Your task to perform on an android device: delete the emails in spam in the gmail app Image 0: 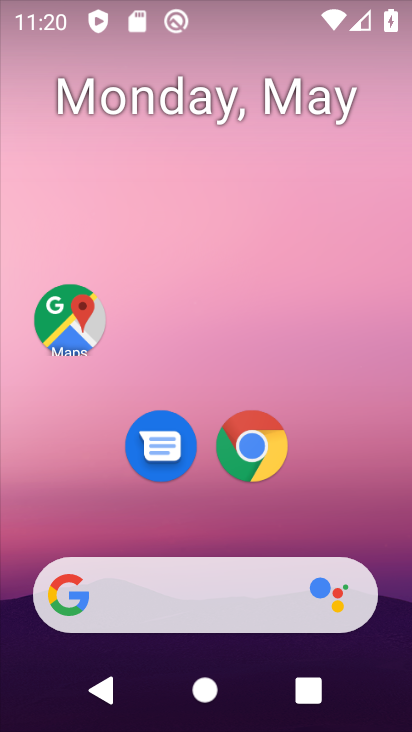
Step 0: drag from (332, 494) to (201, 46)
Your task to perform on an android device: delete the emails in spam in the gmail app Image 1: 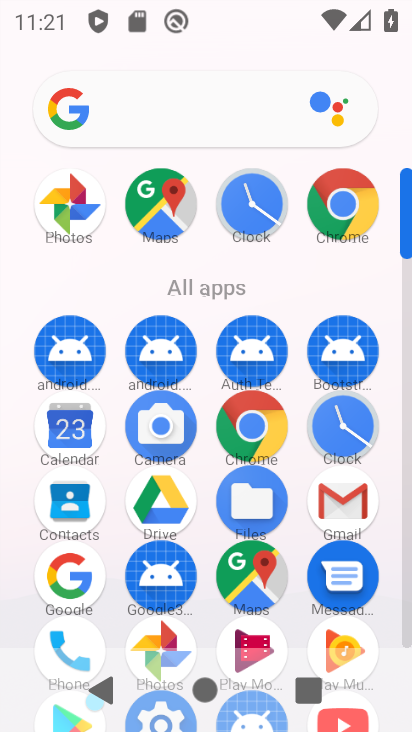
Step 1: click (329, 494)
Your task to perform on an android device: delete the emails in spam in the gmail app Image 2: 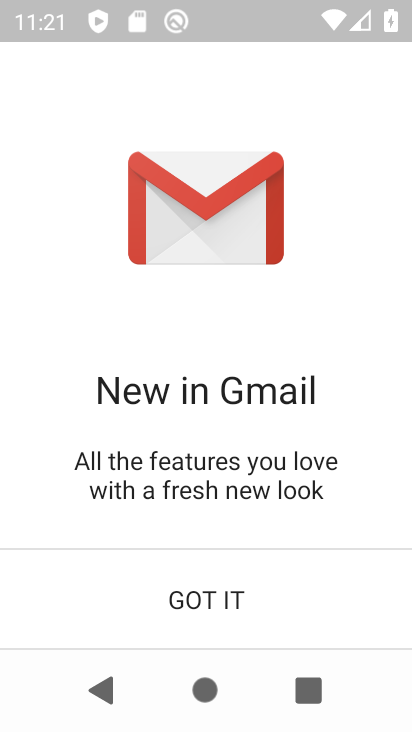
Step 2: click (214, 586)
Your task to perform on an android device: delete the emails in spam in the gmail app Image 3: 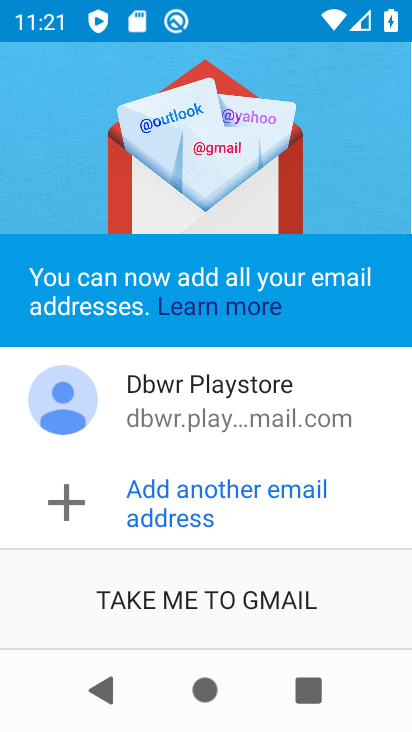
Step 3: click (204, 593)
Your task to perform on an android device: delete the emails in spam in the gmail app Image 4: 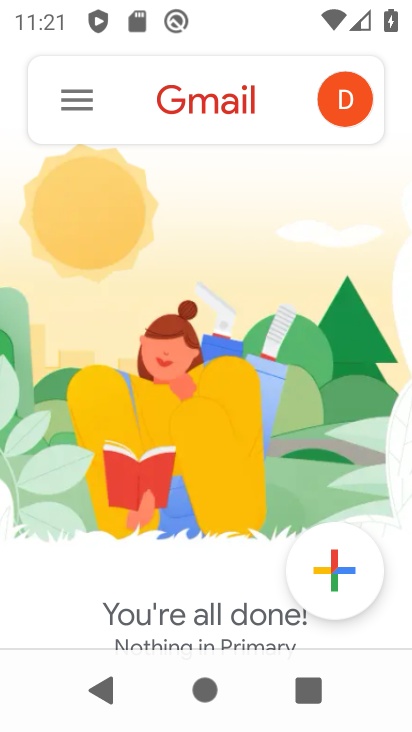
Step 4: click (72, 93)
Your task to perform on an android device: delete the emails in spam in the gmail app Image 5: 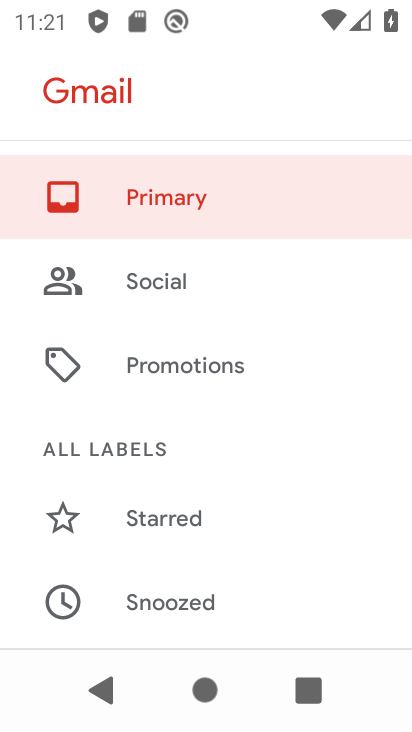
Step 5: drag from (240, 556) to (217, 161)
Your task to perform on an android device: delete the emails in spam in the gmail app Image 6: 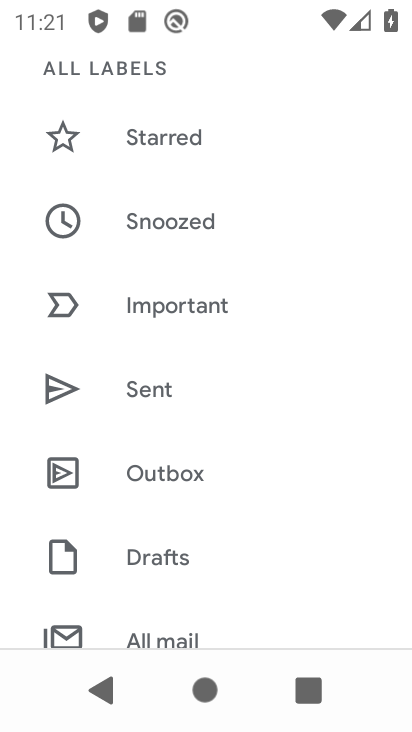
Step 6: drag from (224, 528) to (206, 290)
Your task to perform on an android device: delete the emails in spam in the gmail app Image 7: 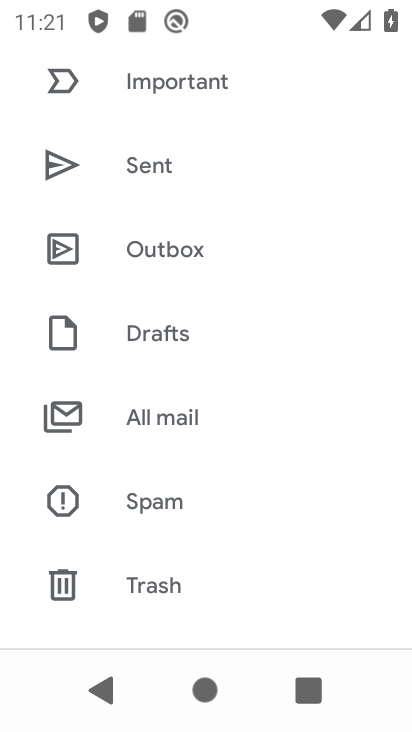
Step 7: click (161, 503)
Your task to perform on an android device: delete the emails in spam in the gmail app Image 8: 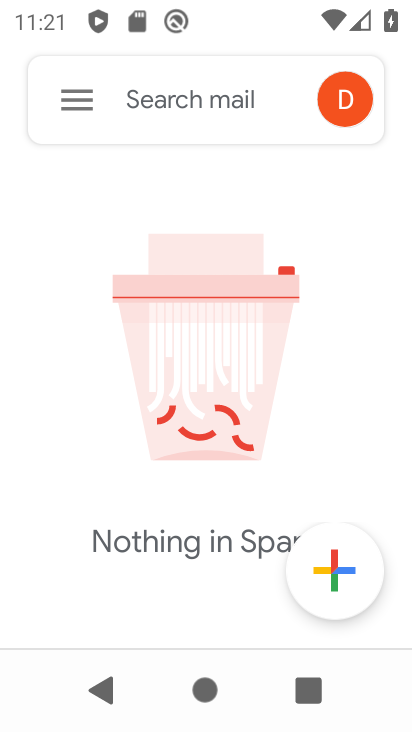
Step 8: task complete